Your task to perform on an android device: see creations saved in the google photos Image 0: 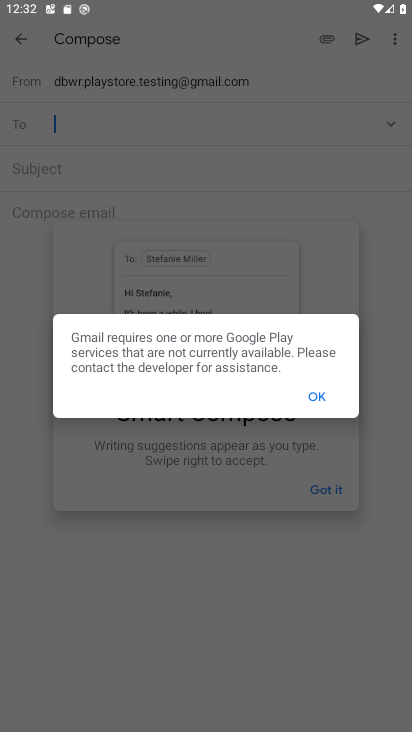
Step 0: press home button
Your task to perform on an android device: see creations saved in the google photos Image 1: 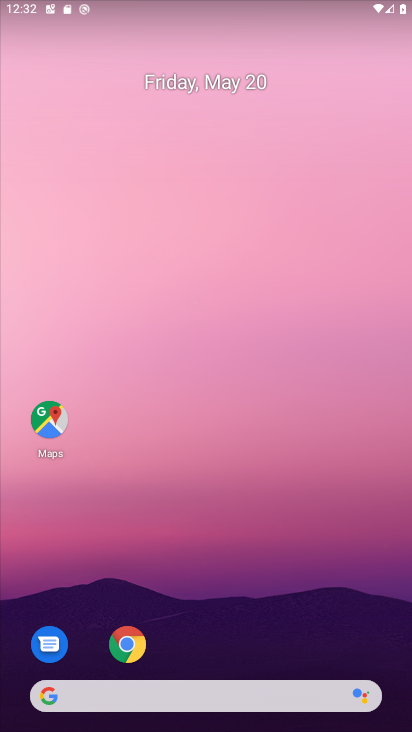
Step 1: drag from (216, 670) to (219, 313)
Your task to perform on an android device: see creations saved in the google photos Image 2: 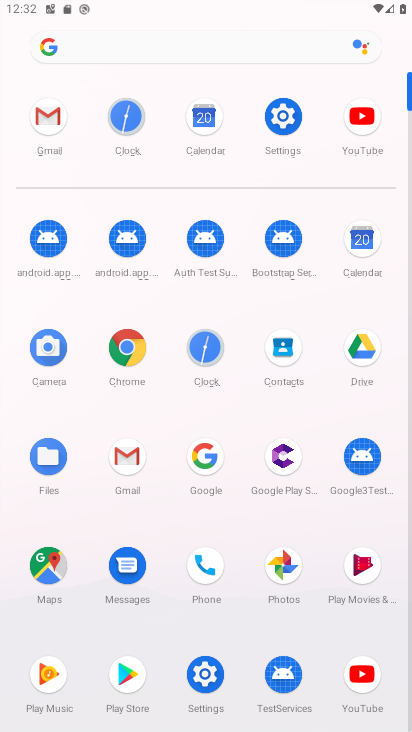
Step 2: click (276, 570)
Your task to perform on an android device: see creations saved in the google photos Image 3: 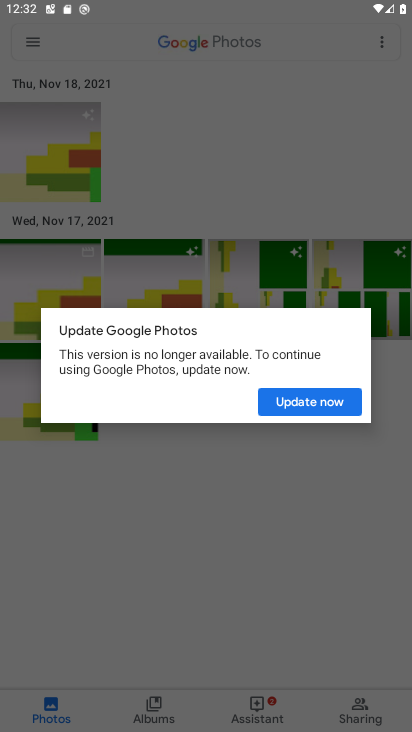
Step 3: click (316, 403)
Your task to perform on an android device: see creations saved in the google photos Image 4: 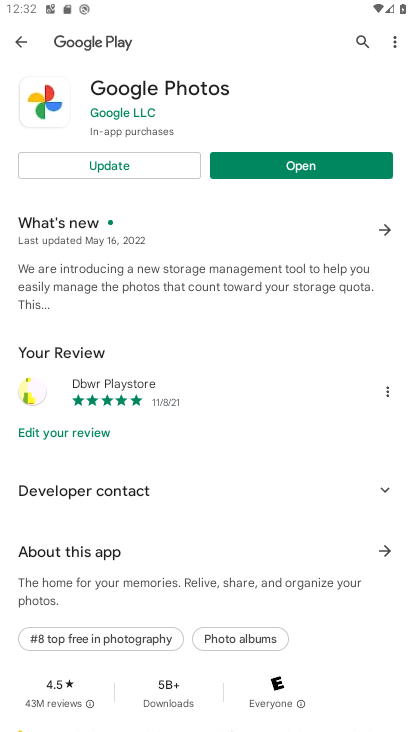
Step 4: click (112, 171)
Your task to perform on an android device: see creations saved in the google photos Image 5: 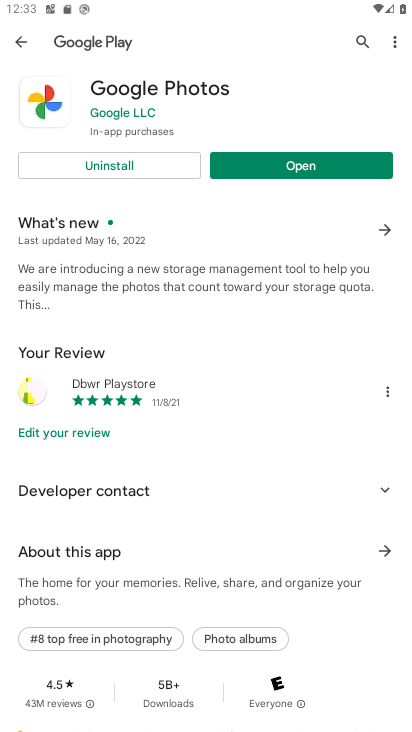
Step 5: click (281, 164)
Your task to perform on an android device: see creations saved in the google photos Image 6: 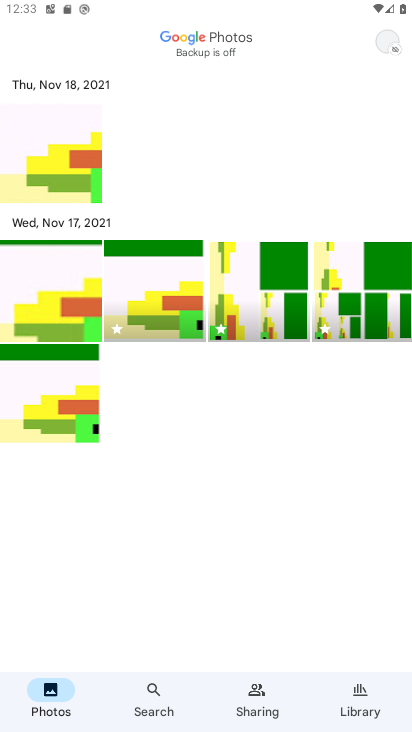
Step 6: click (358, 691)
Your task to perform on an android device: see creations saved in the google photos Image 7: 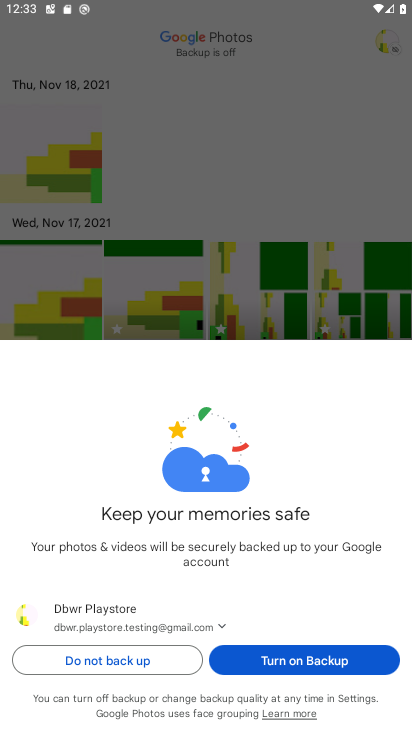
Step 7: click (278, 659)
Your task to perform on an android device: see creations saved in the google photos Image 8: 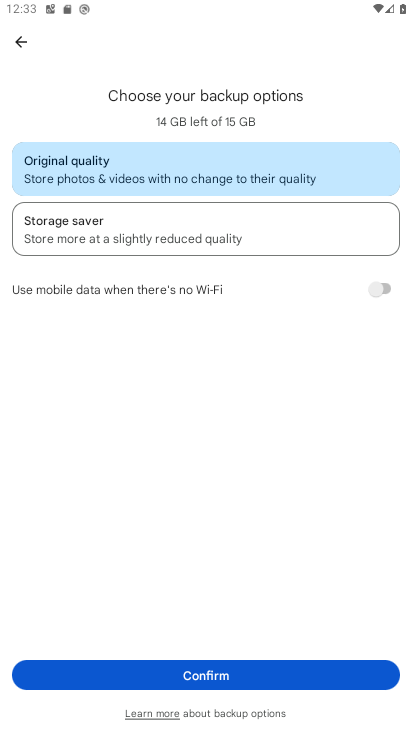
Step 8: click (208, 679)
Your task to perform on an android device: see creations saved in the google photos Image 9: 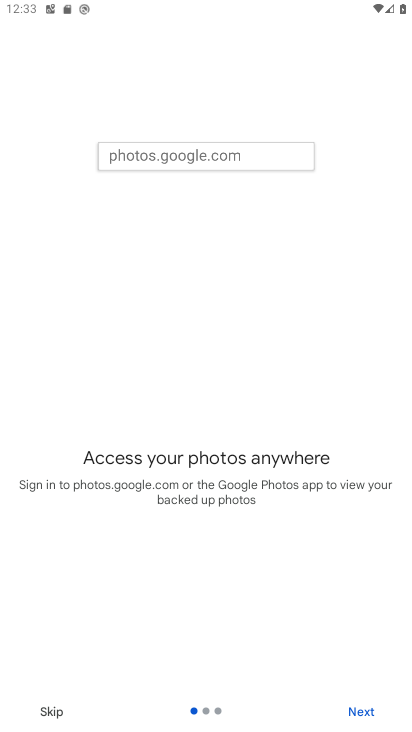
Step 9: click (356, 703)
Your task to perform on an android device: see creations saved in the google photos Image 10: 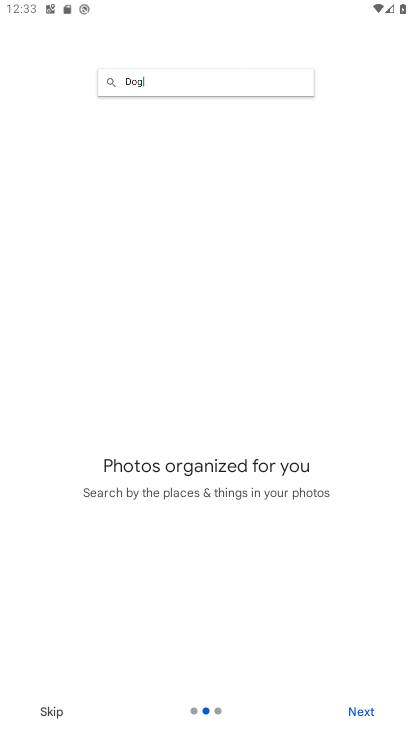
Step 10: click (356, 703)
Your task to perform on an android device: see creations saved in the google photos Image 11: 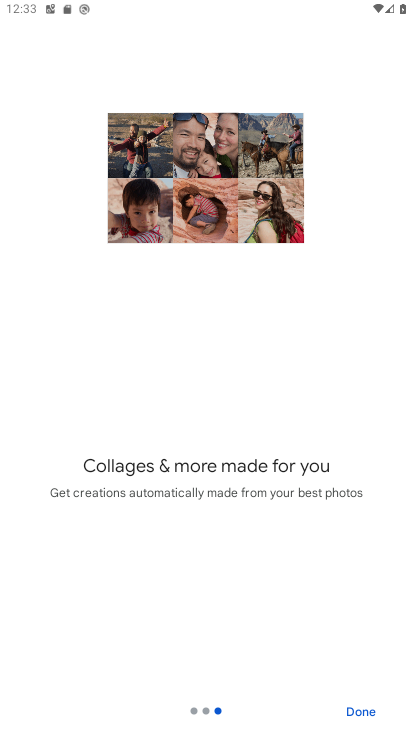
Step 11: click (357, 704)
Your task to perform on an android device: see creations saved in the google photos Image 12: 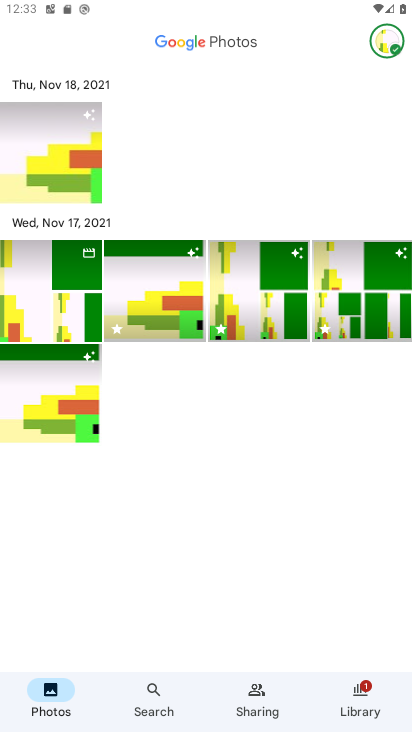
Step 12: click (357, 704)
Your task to perform on an android device: see creations saved in the google photos Image 13: 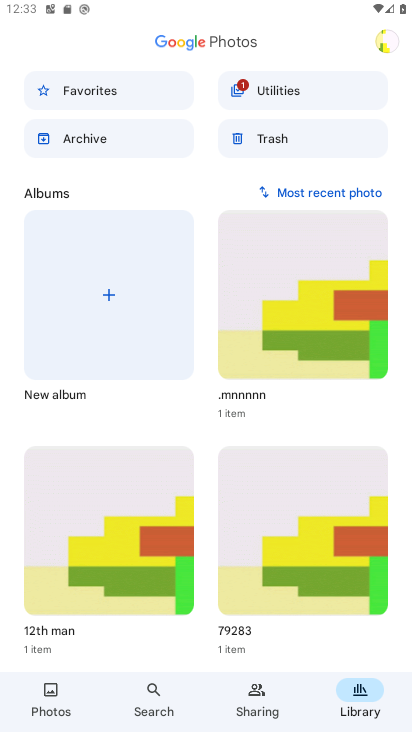
Step 13: task complete